Your task to perform on an android device: toggle improve location accuracy Image 0: 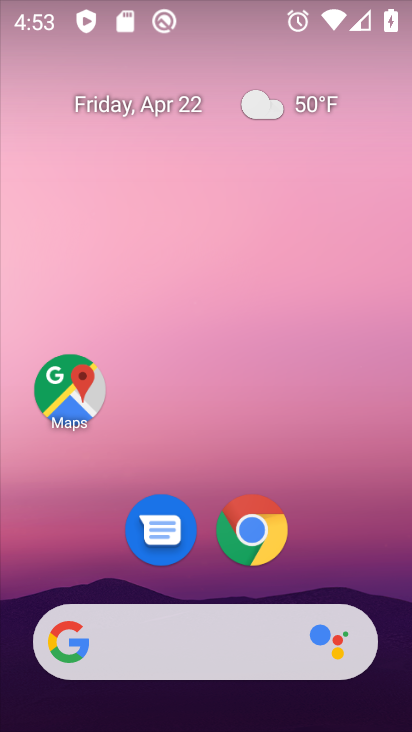
Step 0: drag from (346, 528) to (307, 122)
Your task to perform on an android device: toggle improve location accuracy Image 1: 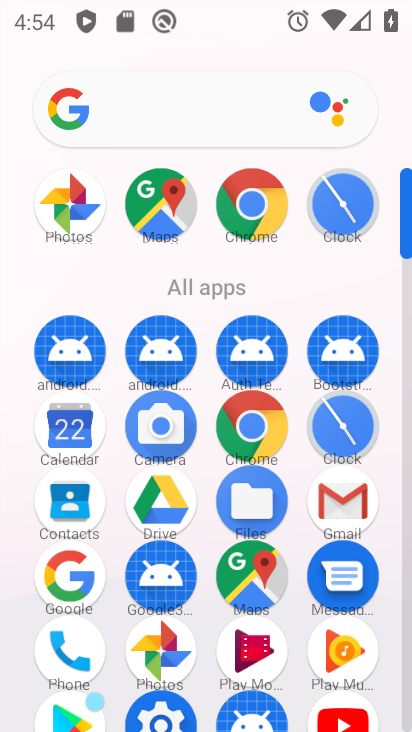
Step 1: drag from (294, 306) to (257, 28)
Your task to perform on an android device: toggle improve location accuracy Image 2: 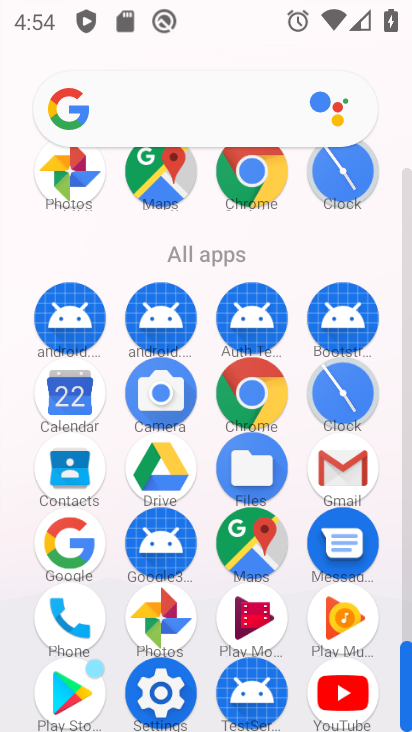
Step 2: click (155, 696)
Your task to perform on an android device: toggle improve location accuracy Image 3: 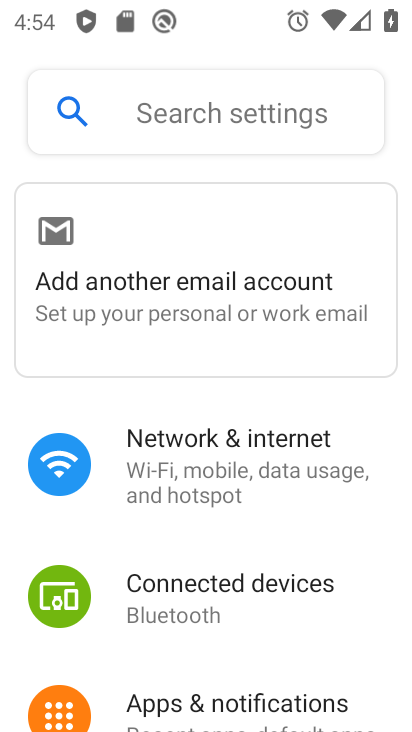
Step 3: drag from (341, 641) to (322, 181)
Your task to perform on an android device: toggle improve location accuracy Image 4: 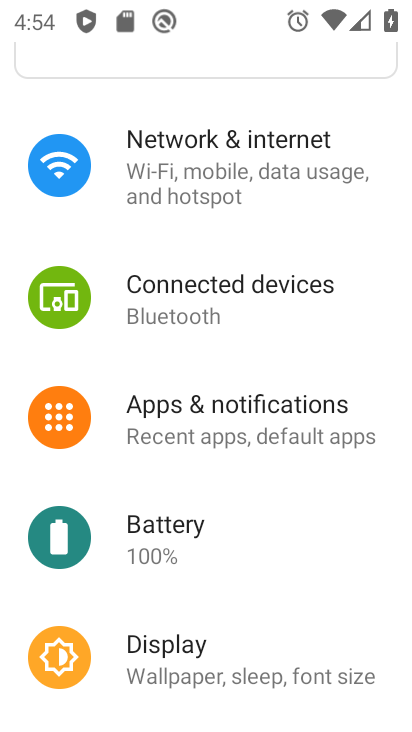
Step 4: drag from (334, 573) to (329, 172)
Your task to perform on an android device: toggle improve location accuracy Image 5: 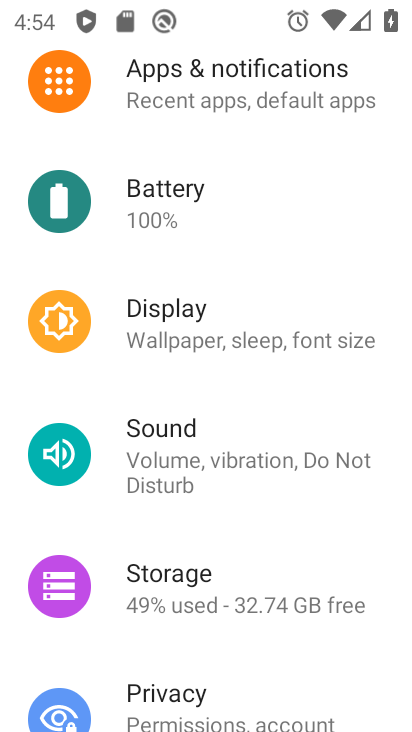
Step 5: drag from (282, 670) to (296, 190)
Your task to perform on an android device: toggle improve location accuracy Image 6: 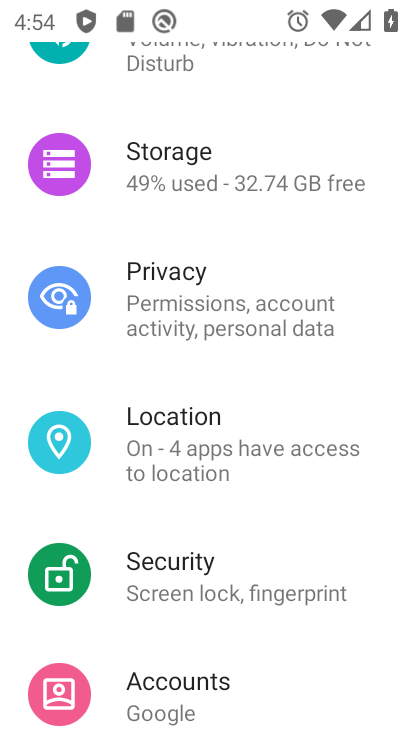
Step 6: click (168, 454)
Your task to perform on an android device: toggle improve location accuracy Image 7: 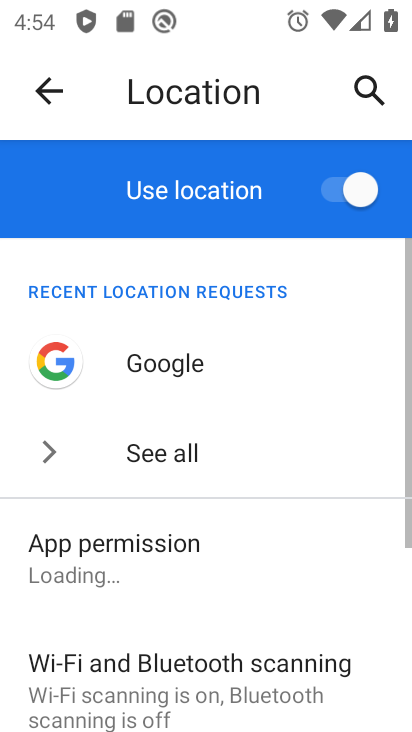
Step 7: drag from (306, 496) to (306, 152)
Your task to perform on an android device: toggle improve location accuracy Image 8: 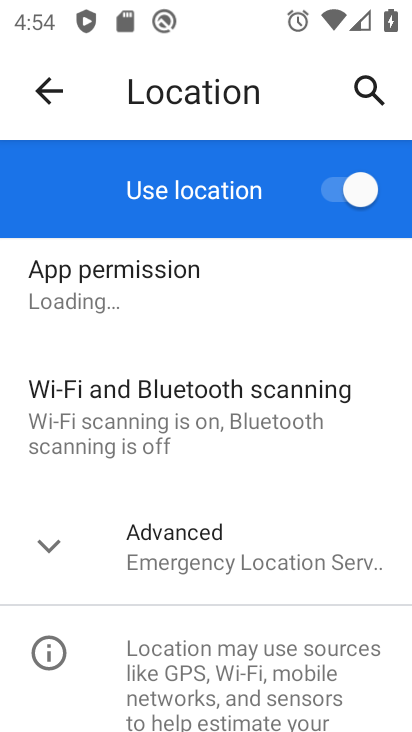
Step 8: click (334, 549)
Your task to perform on an android device: toggle improve location accuracy Image 9: 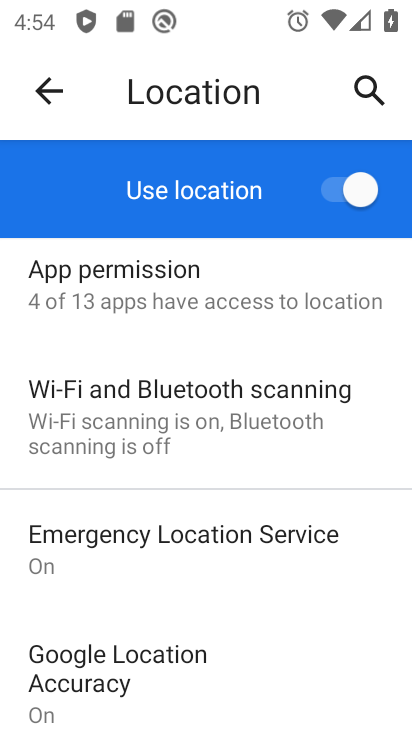
Step 9: drag from (303, 650) to (316, 337)
Your task to perform on an android device: toggle improve location accuracy Image 10: 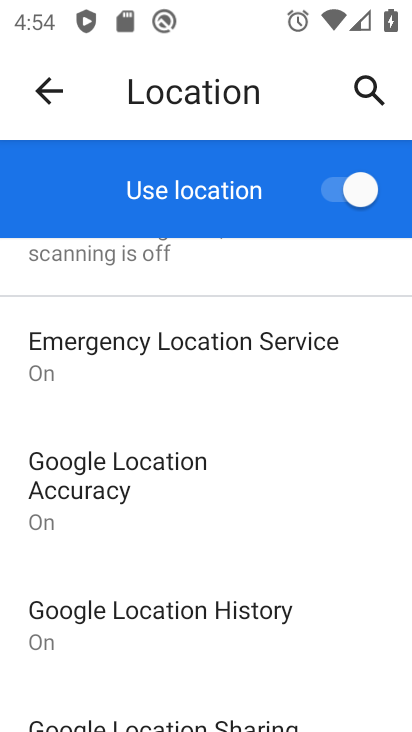
Step 10: drag from (332, 561) to (322, 322)
Your task to perform on an android device: toggle improve location accuracy Image 11: 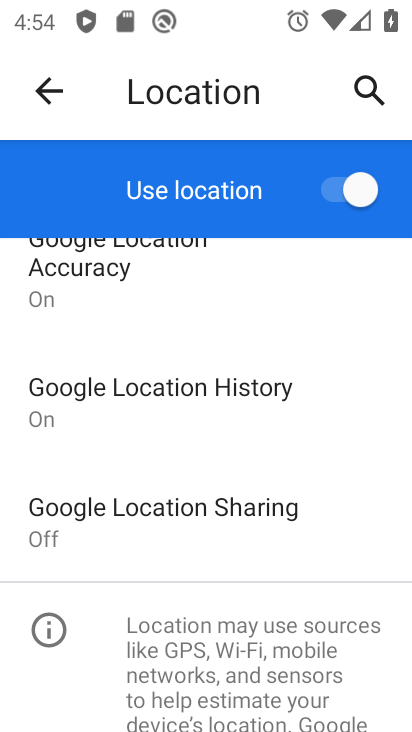
Step 11: drag from (281, 600) to (292, 335)
Your task to perform on an android device: toggle improve location accuracy Image 12: 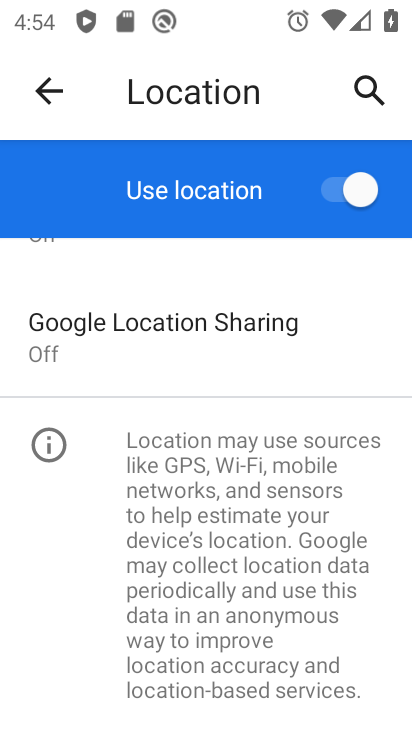
Step 12: drag from (313, 606) to (311, 297)
Your task to perform on an android device: toggle improve location accuracy Image 13: 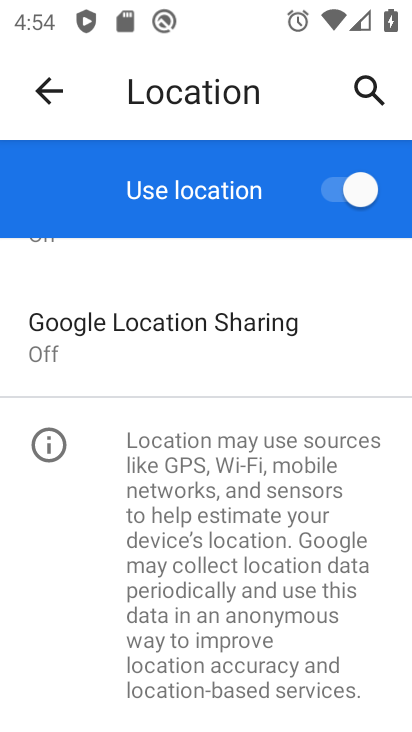
Step 13: drag from (311, 299) to (294, 497)
Your task to perform on an android device: toggle improve location accuracy Image 14: 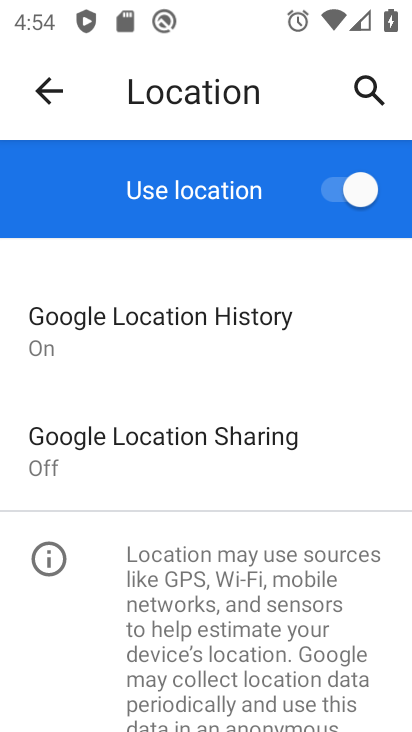
Step 14: drag from (318, 329) to (302, 539)
Your task to perform on an android device: toggle improve location accuracy Image 15: 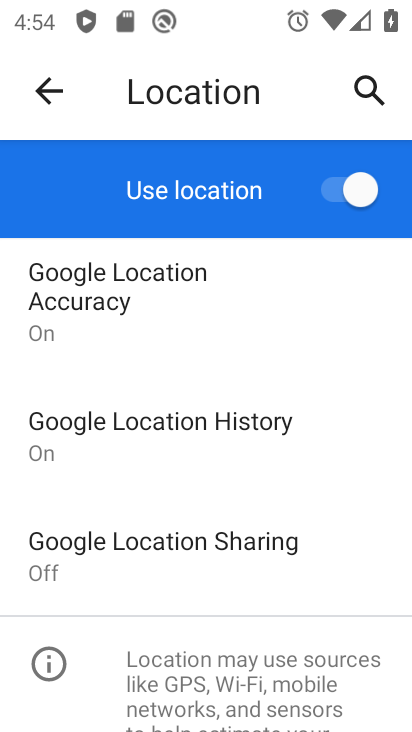
Step 15: click (87, 261)
Your task to perform on an android device: toggle improve location accuracy Image 16: 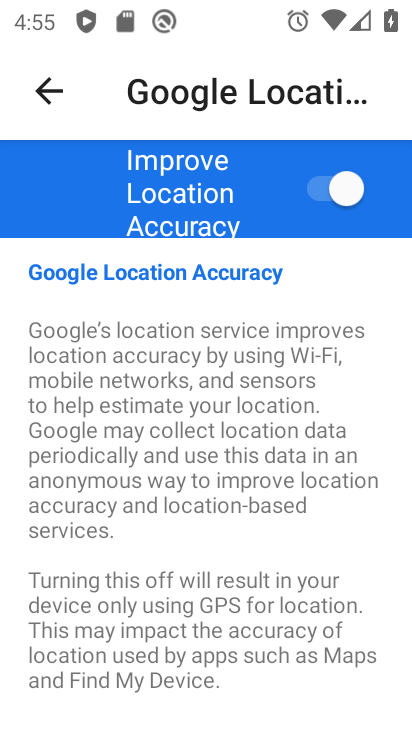
Step 16: click (335, 185)
Your task to perform on an android device: toggle improve location accuracy Image 17: 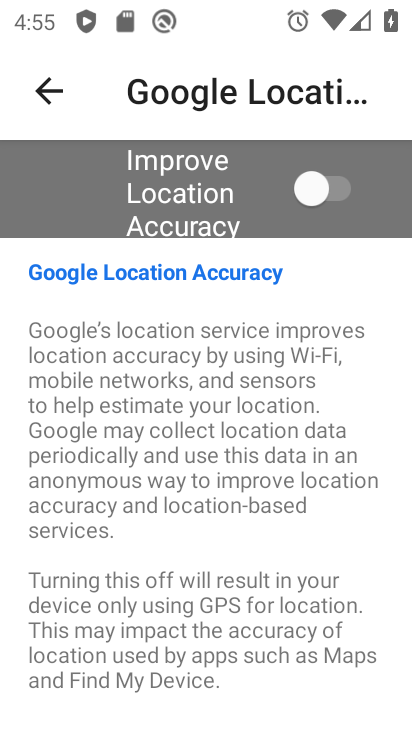
Step 17: task complete